Your task to perform on an android device: What's on my calendar tomorrow? Image 0: 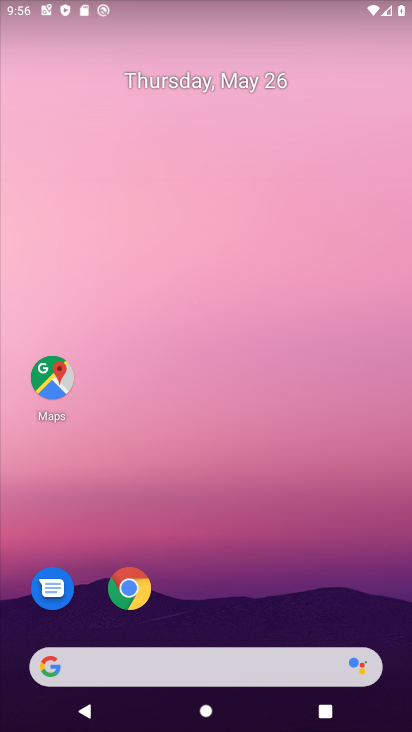
Step 0: drag from (170, 727) to (162, 659)
Your task to perform on an android device: What's on my calendar tomorrow? Image 1: 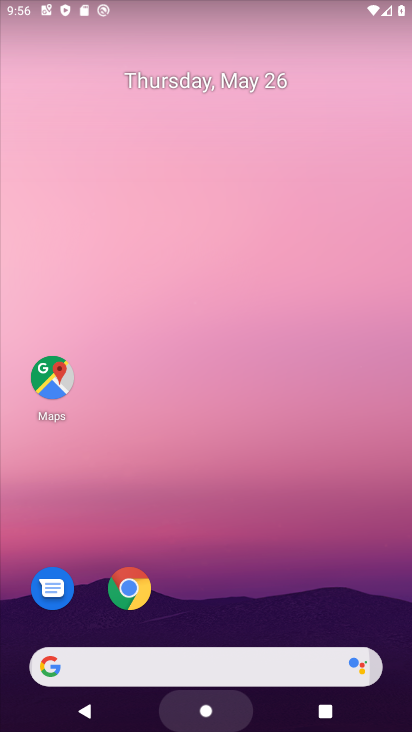
Step 1: drag from (145, 261) to (141, 19)
Your task to perform on an android device: What's on my calendar tomorrow? Image 2: 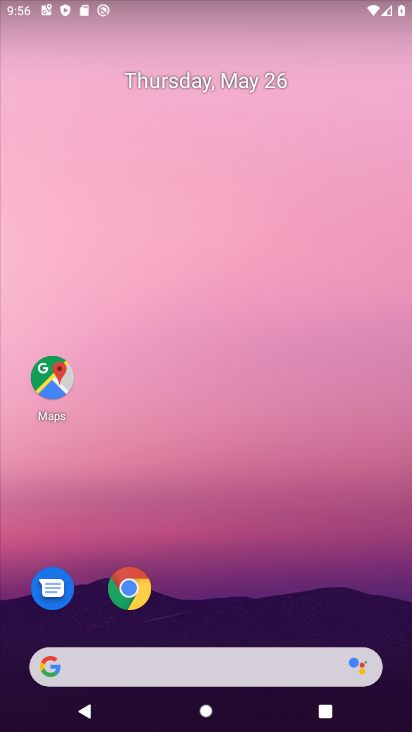
Step 2: drag from (218, 731) to (212, 32)
Your task to perform on an android device: What's on my calendar tomorrow? Image 3: 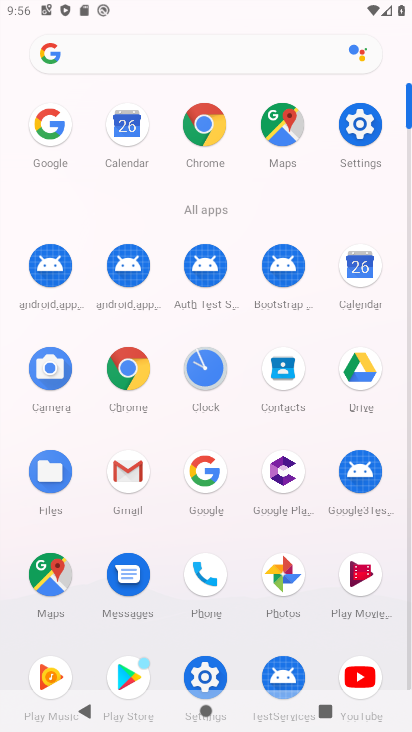
Step 3: click (359, 275)
Your task to perform on an android device: What's on my calendar tomorrow? Image 4: 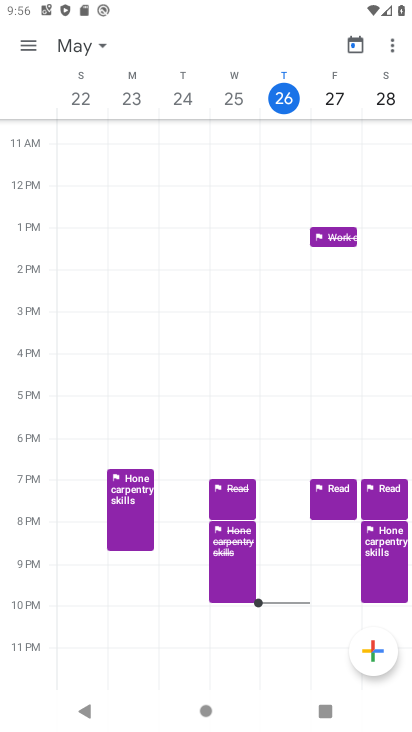
Step 4: click (329, 89)
Your task to perform on an android device: What's on my calendar tomorrow? Image 5: 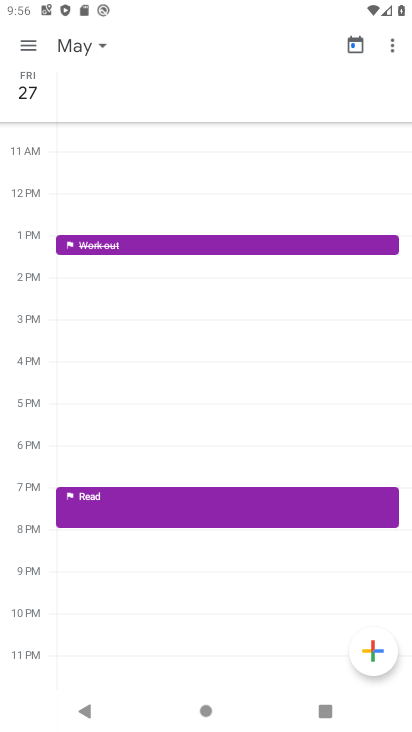
Step 5: task complete